Your task to perform on an android device: Go to Amazon Image 0: 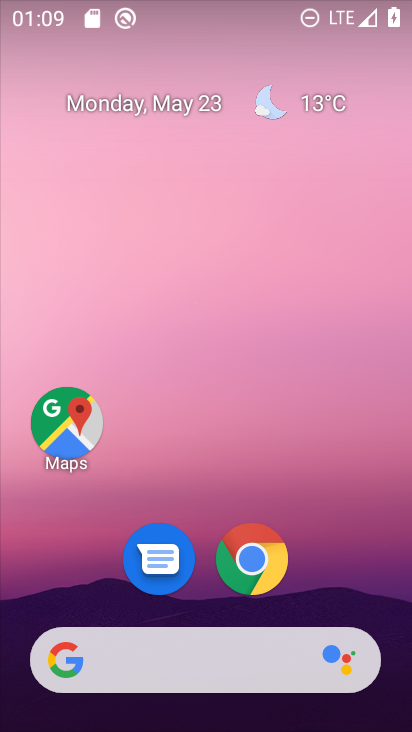
Step 0: click (256, 563)
Your task to perform on an android device: Go to Amazon Image 1: 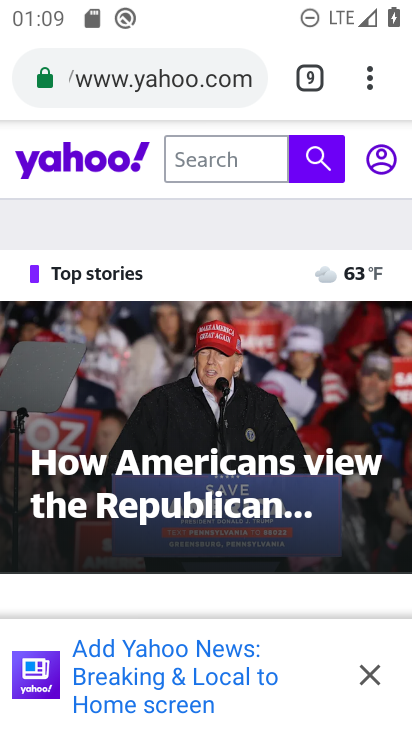
Step 1: click (102, 76)
Your task to perform on an android device: Go to Amazon Image 2: 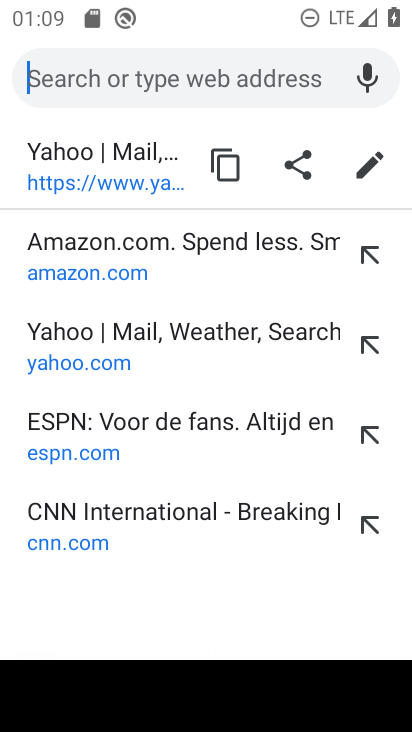
Step 2: click (88, 270)
Your task to perform on an android device: Go to Amazon Image 3: 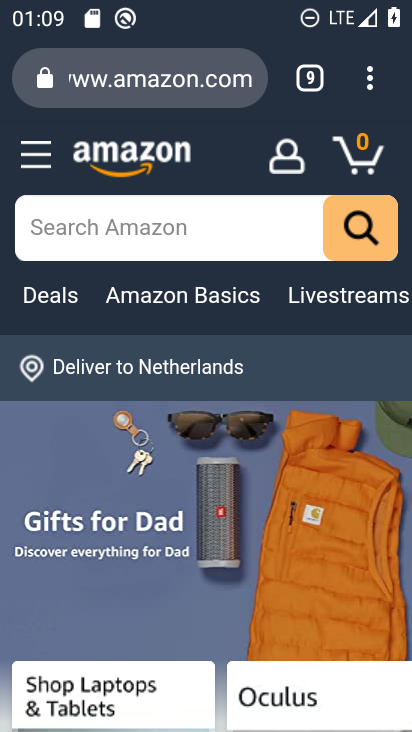
Step 3: task complete